Your task to perform on an android device: Play the last video I watched on Youtube Image 0: 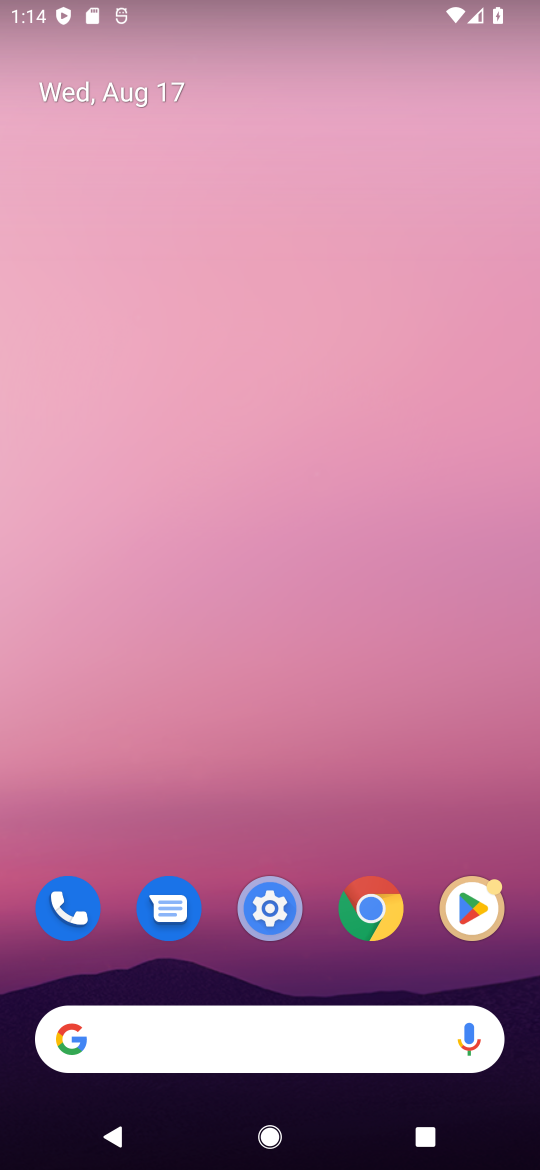
Step 0: drag from (295, 984) to (414, 360)
Your task to perform on an android device: Play the last video I watched on Youtube Image 1: 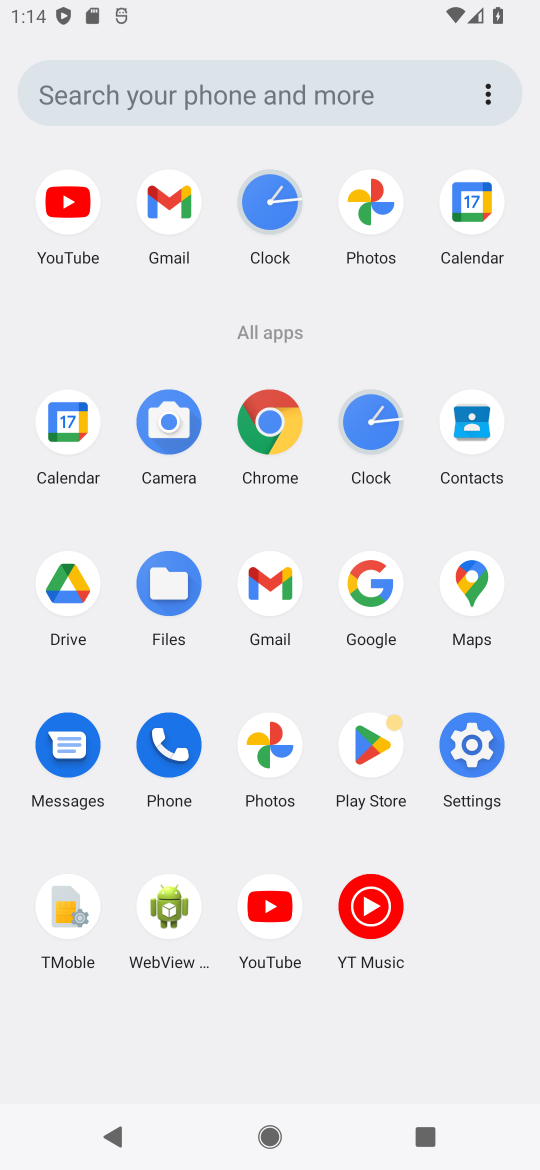
Step 1: click (279, 902)
Your task to perform on an android device: Play the last video I watched on Youtube Image 2: 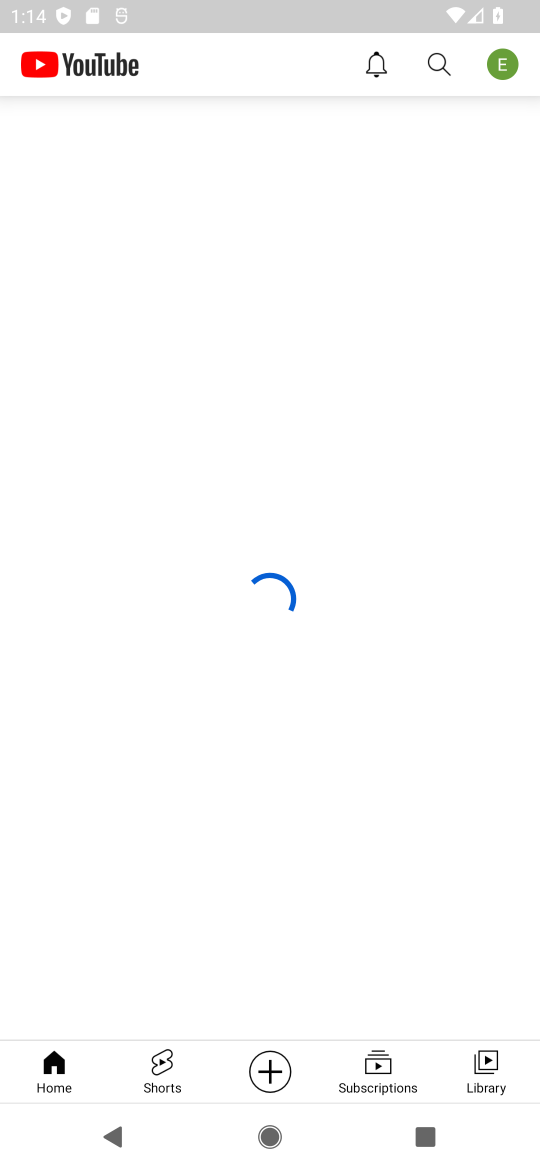
Step 2: click (469, 1072)
Your task to perform on an android device: Play the last video I watched on Youtube Image 3: 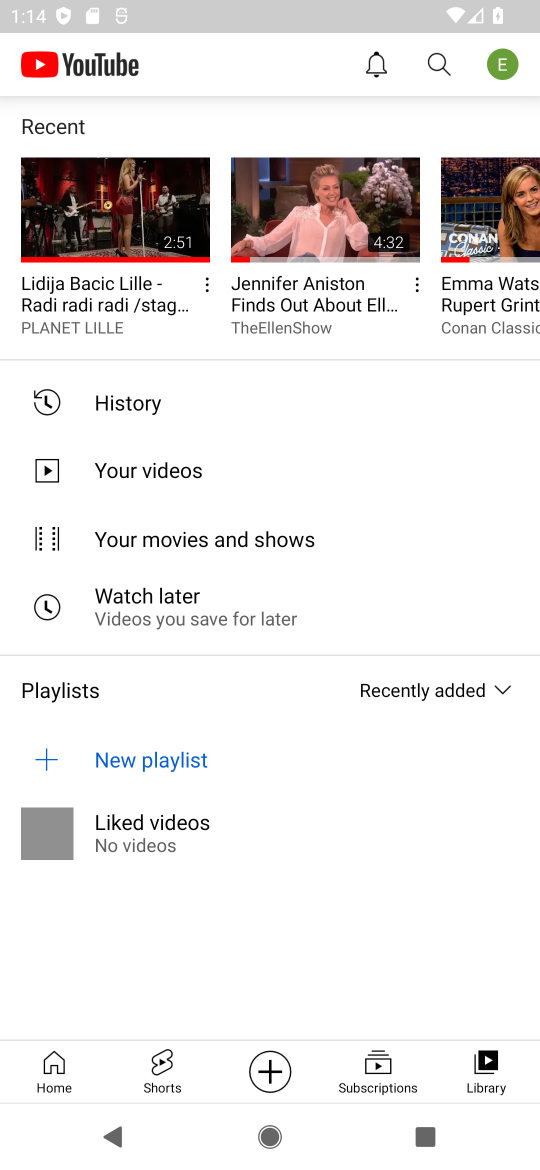
Step 3: click (100, 230)
Your task to perform on an android device: Play the last video I watched on Youtube Image 4: 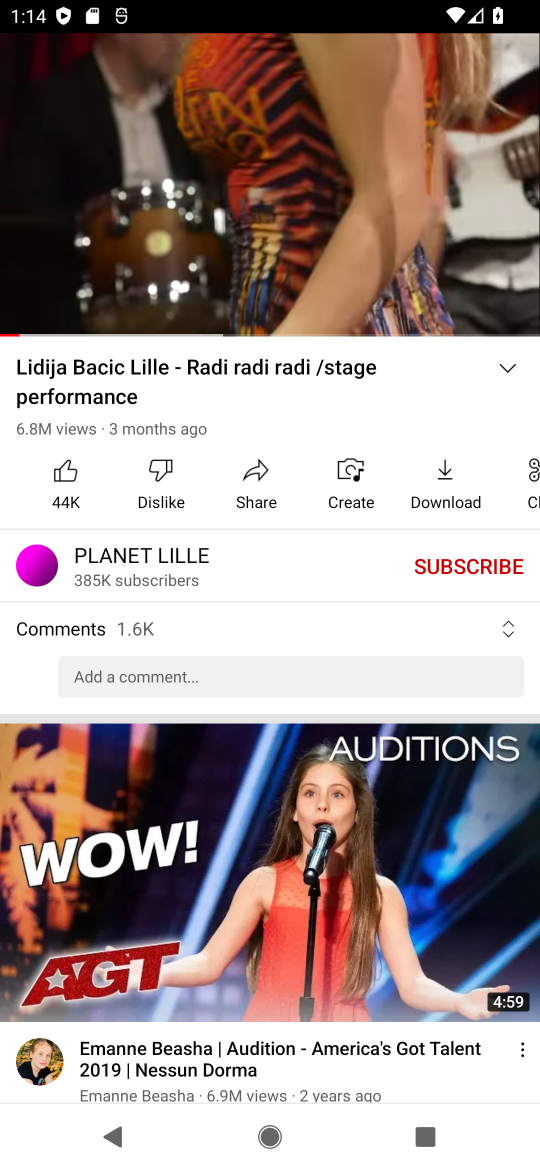
Step 4: task complete